Your task to perform on an android device: Open the map Image 0: 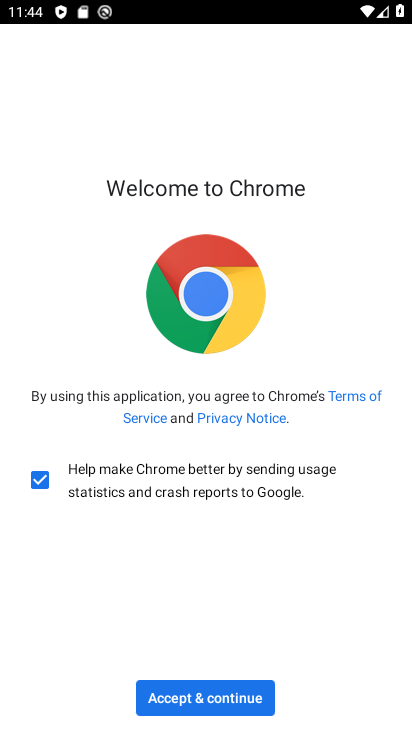
Step 0: press home button
Your task to perform on an android device: Open the map Image 1: 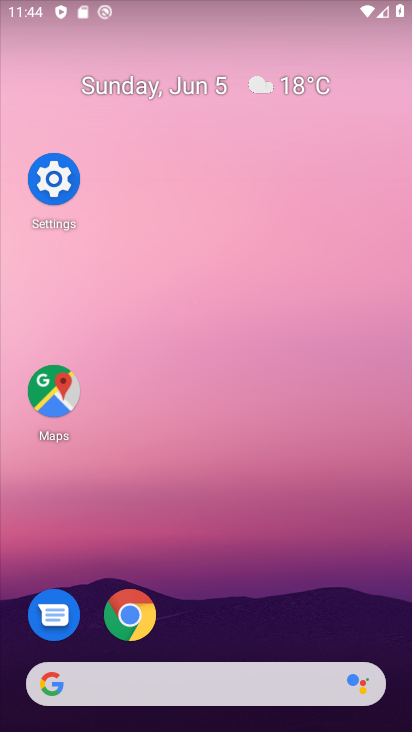
Step 1: click (53, 420)
Your task to perform on an android device: Open the map Image 2: 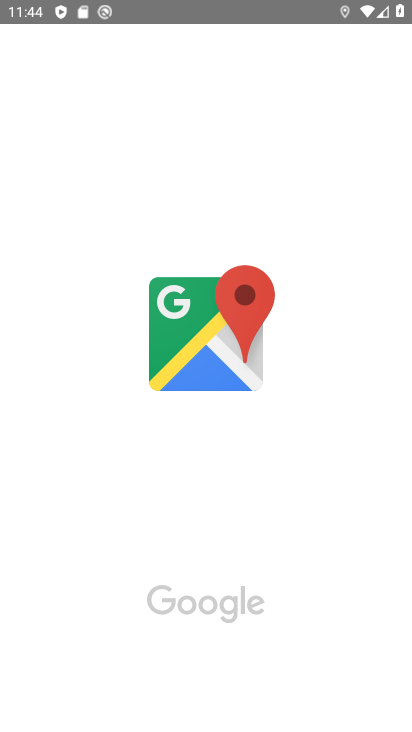
Step 2: task complete